Your task to perform on an android device: check storage Image 0: 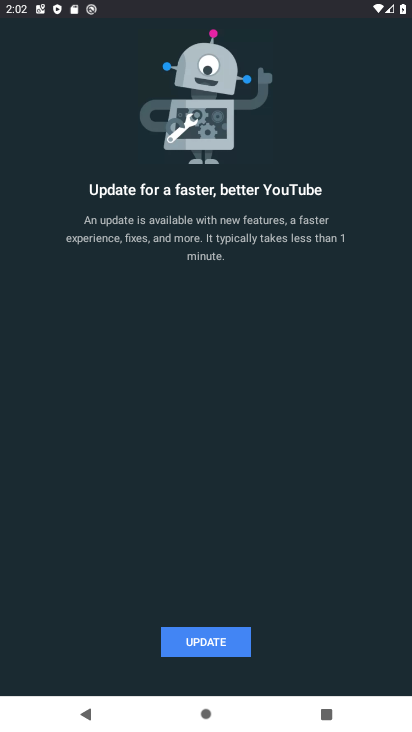
Step 0: press home button
Your task to perform on an android device: check storage Image 1: 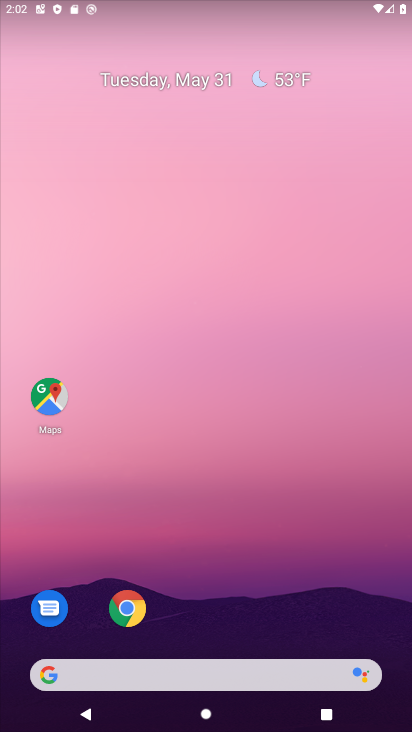
Step 1: drag from (218, 426) to (250, 157)
Your task to perform on an android device: check storage Image 2: 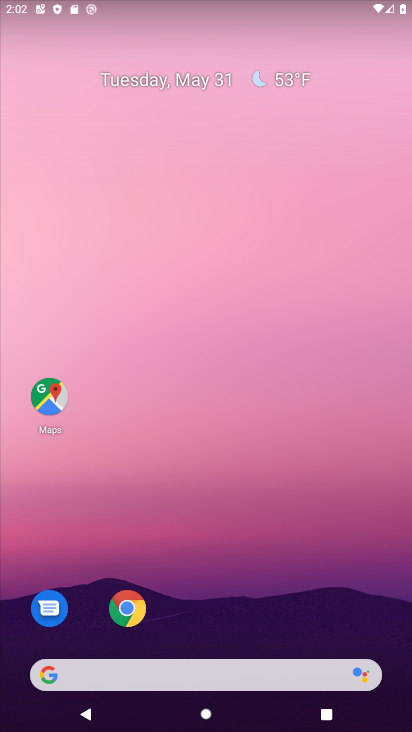
Step 2: drag from (300, 581) to (270, 8)
Your task to perform on an android device: check storage Image 3: 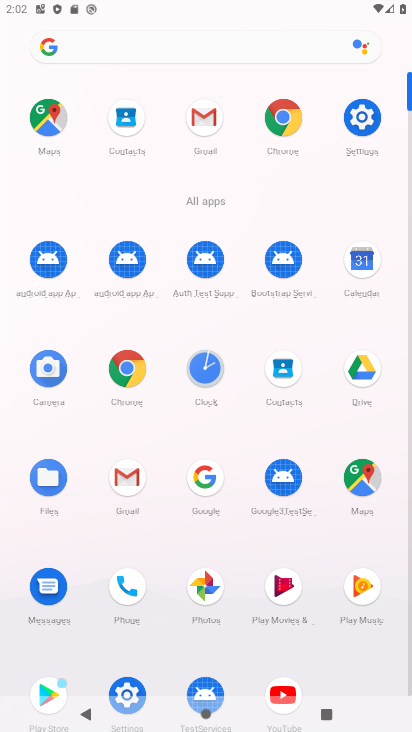
Step 3: click (364, 115)
Your task to perform on an android device: check storage Image 4: 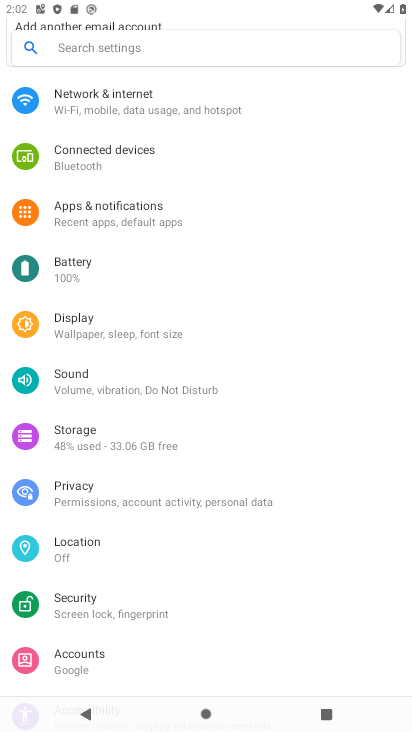
Step 4: click (109, 441)
Your task to perform on an android device: check storage Image 5: 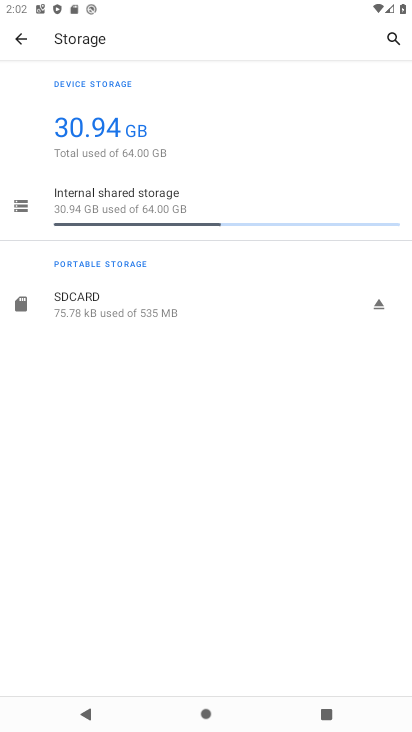
Step 5: task complete